Your task to perform on an android device: toggle notification dots Image 0: 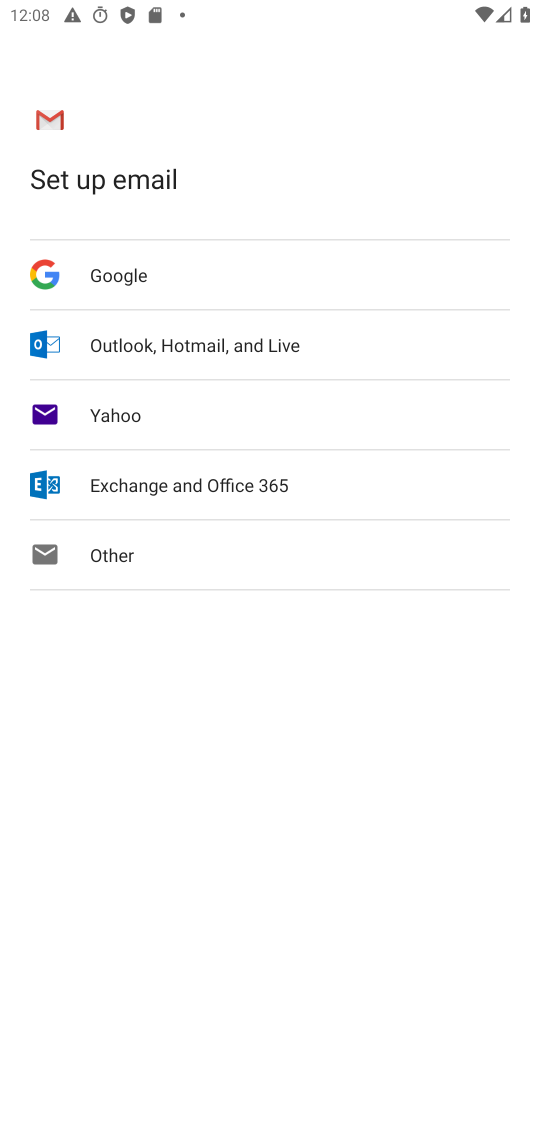
Step 0: press home button
Your task to perform on an android device: toggle notification dots Image 1: 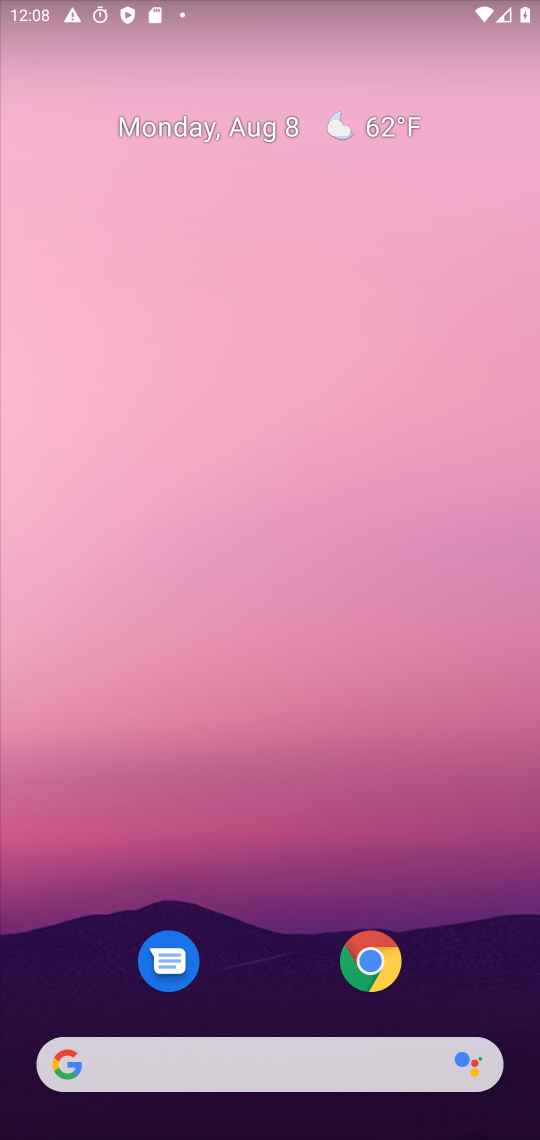
Step 1: drag from (277, 1061) to (457, 212)
Your task to perform on an android device: toggle notification dots Image 2: 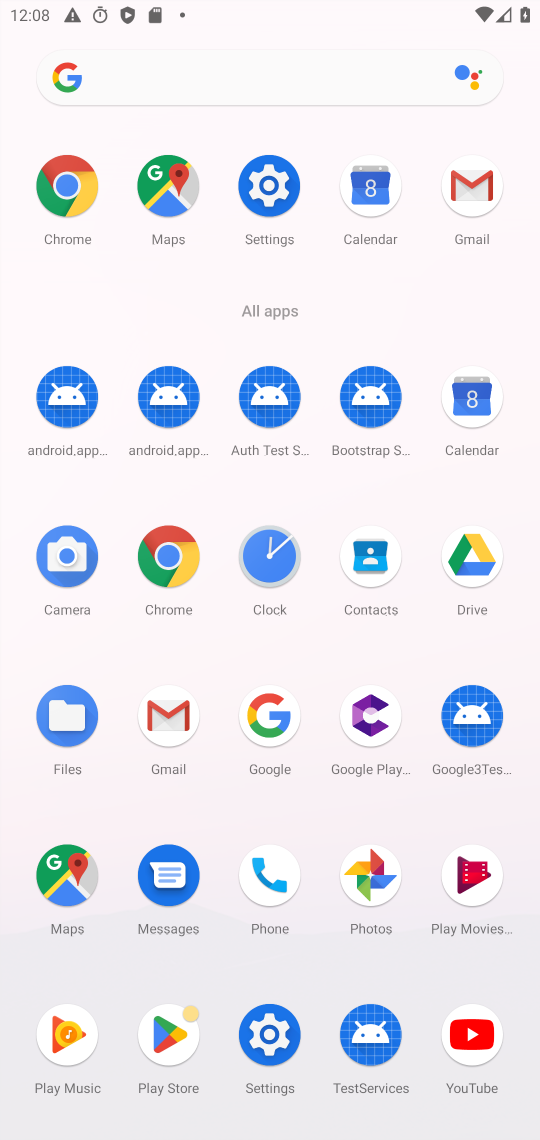
Step 2: click (266, 189)
Your task to perform on an android device: toggle notification dots Image 3: 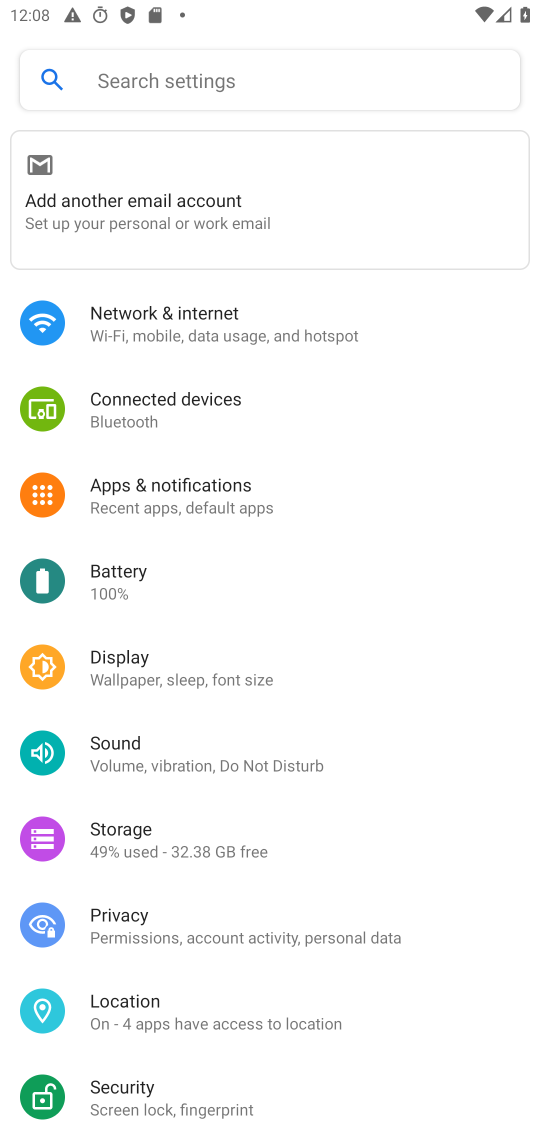
Step 3: click (171, 486)
Your task to perform on an android device: toggle notification dots Image 4: 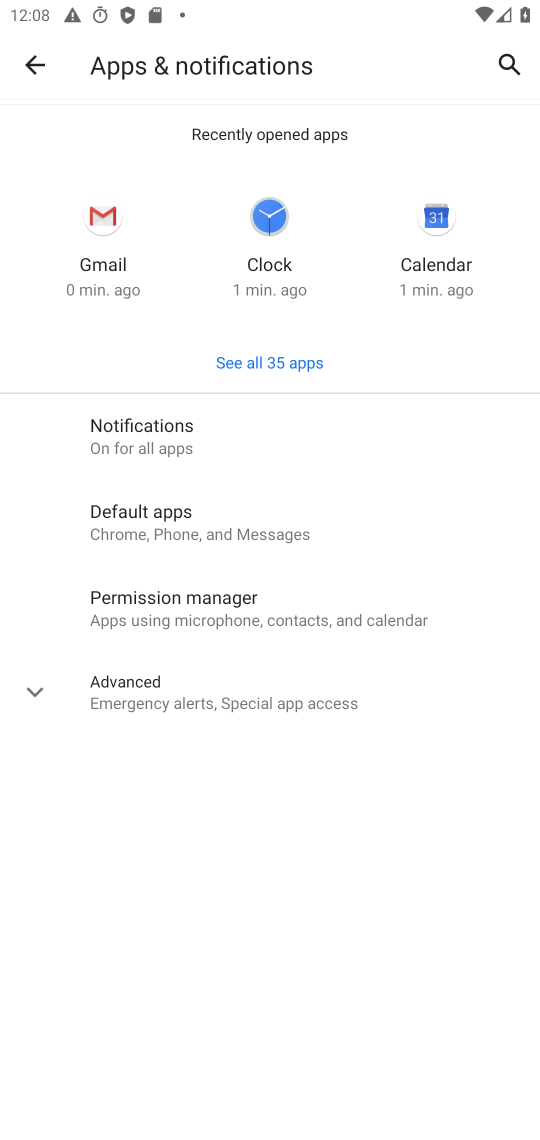
Step 4: click (217, 687)
Your task to perform on an android device: toggle notification dots Image 5: 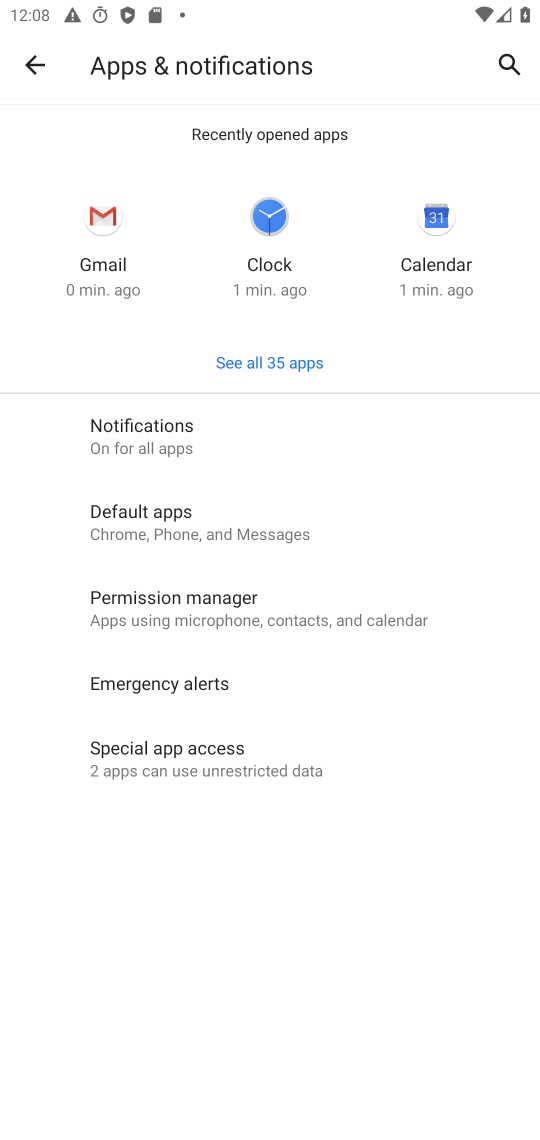
Step 5: click (170, 443)
Your task to perform on an android device: toggle notification dots Image 6: 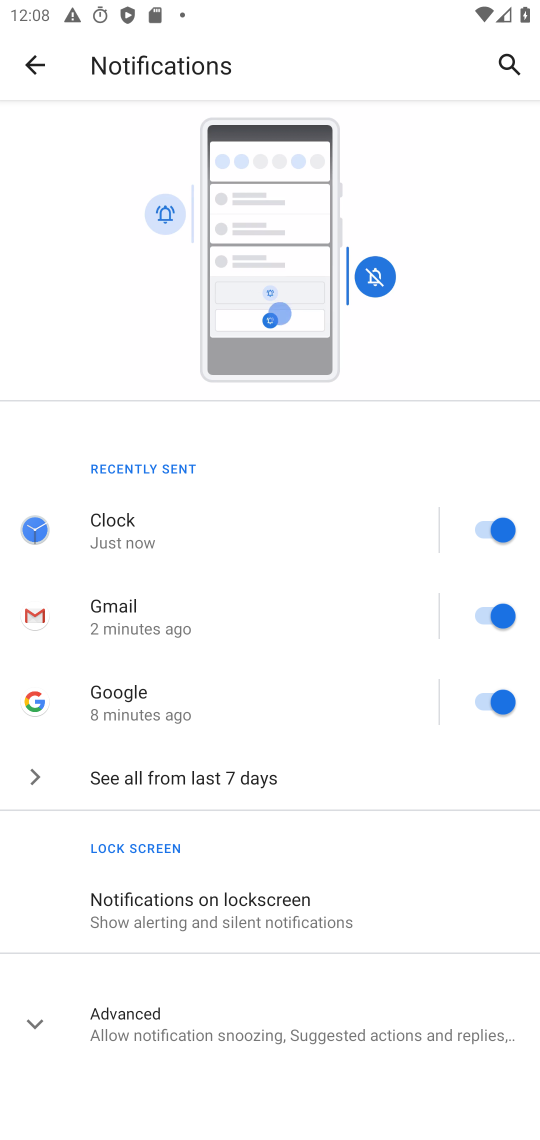
Step 6: click (263, 1024)
Your task to perform on an android device: toggle notification dots Image 7: 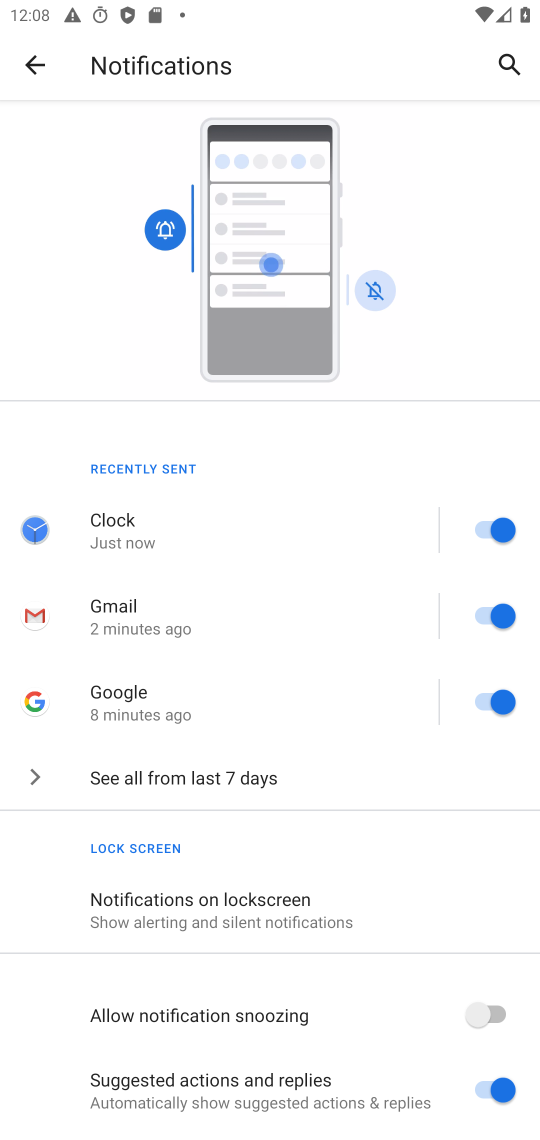
Step 7: drag from (377, 1014) to (234, 262)
Your task to perform on an android device: toggle notification dots Image 8: 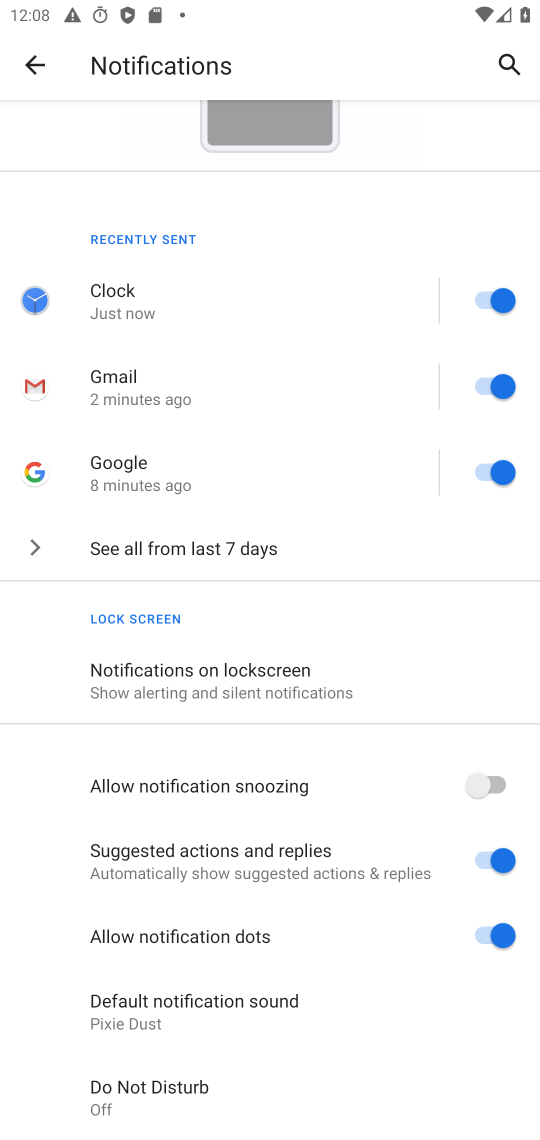
Step 8: click (498, 931)
Your task to perform on an android device: toggle notification dots Image 9: 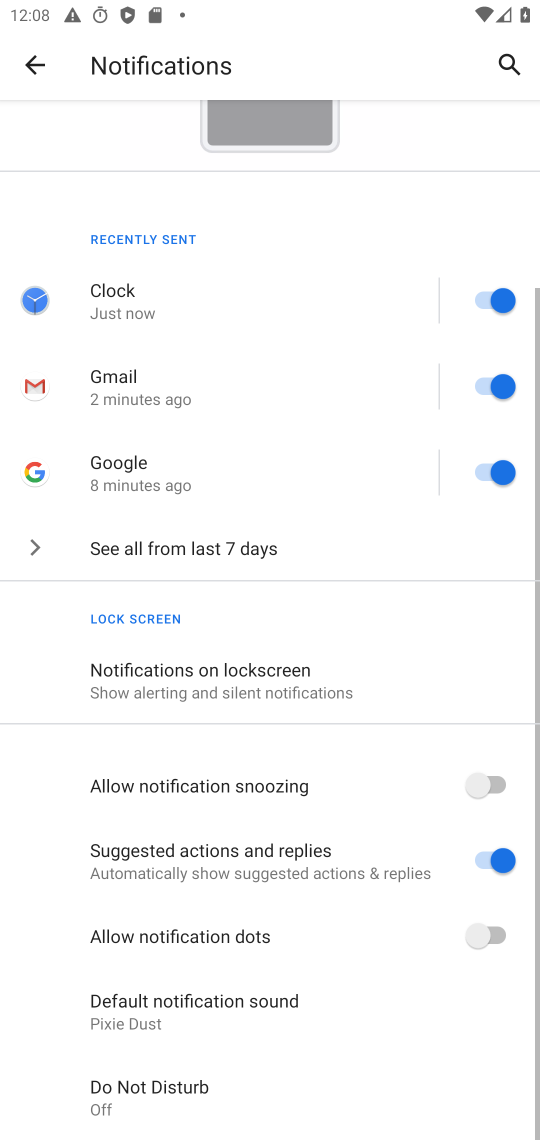
Step 9: task complete